Your task to perform on an android device: turn off notifications settings in the gmail app Image 0: 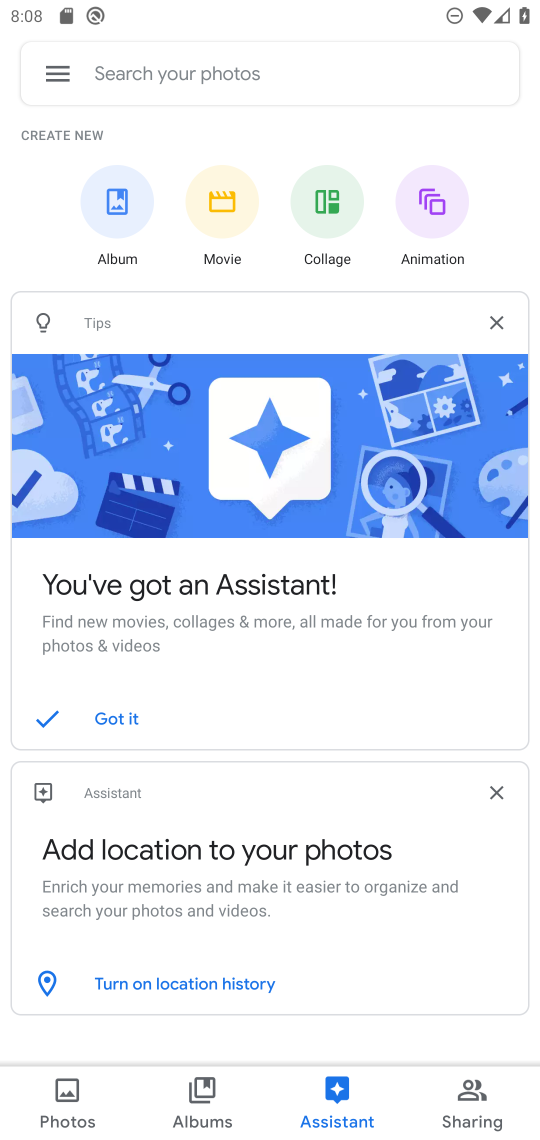
Step 0: press home button
Your task to perform on an android device: turn off notifications settings in the gmail app Image 1: 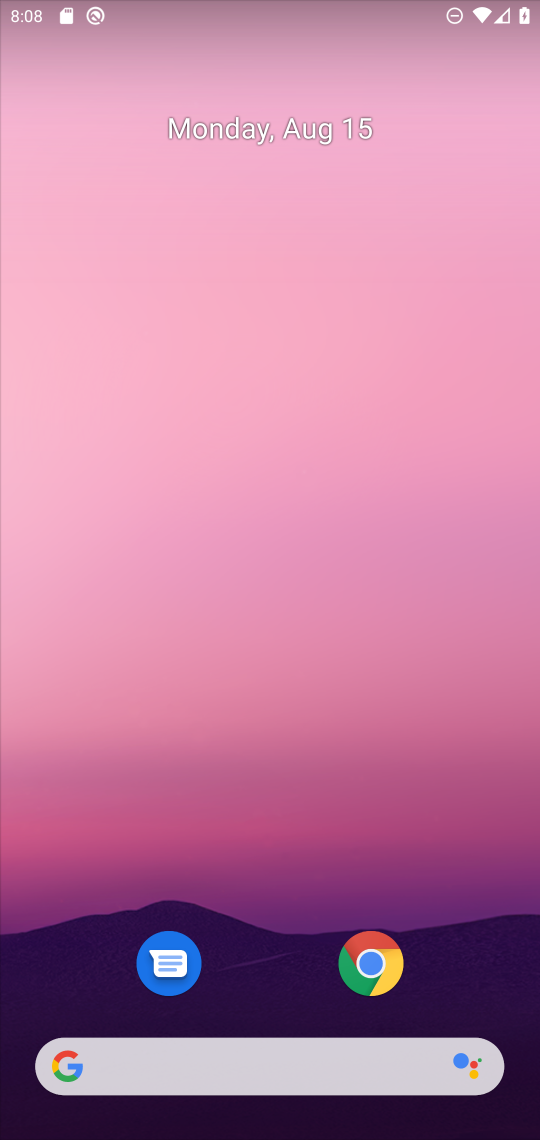
Step 1: drag from (287, 973) to (304, 249)
Your task to perform on an android device: turn off notifications settings in the gmail app Image 2: 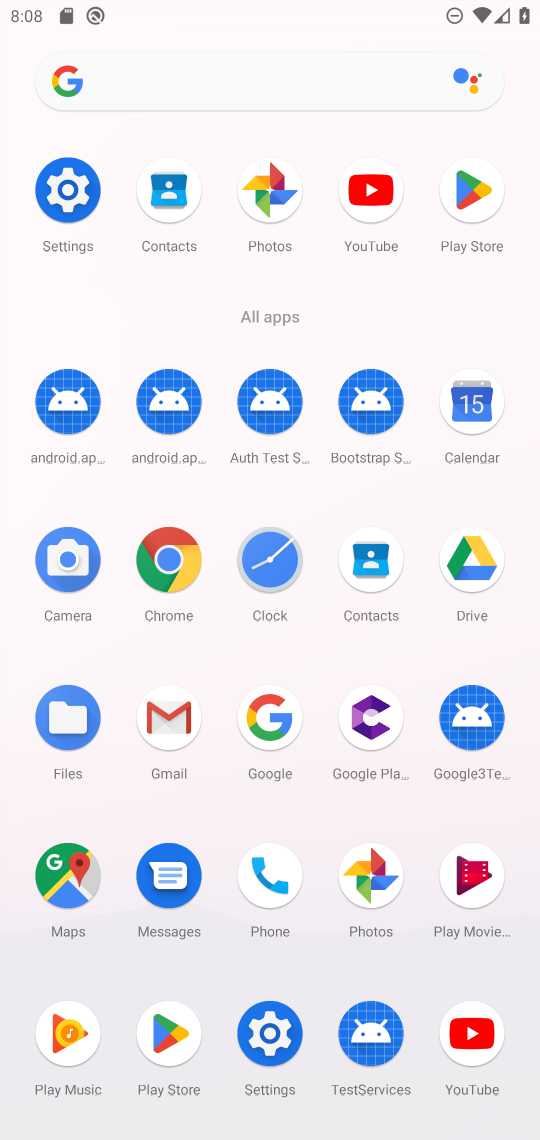
Step 2: click (77, 219)
Your task to perform on an android device: turn off notifications settings in the gmail app Image 3: 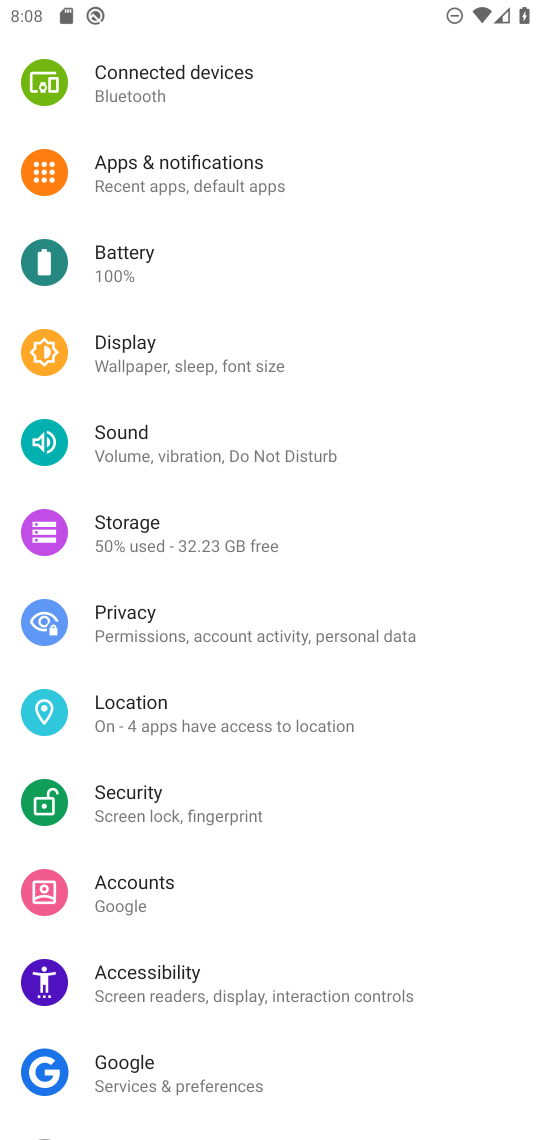
Step 3: click (196, 189)
Your task to perform on an android device: turn off notifications settings in the gmail app Image 4: 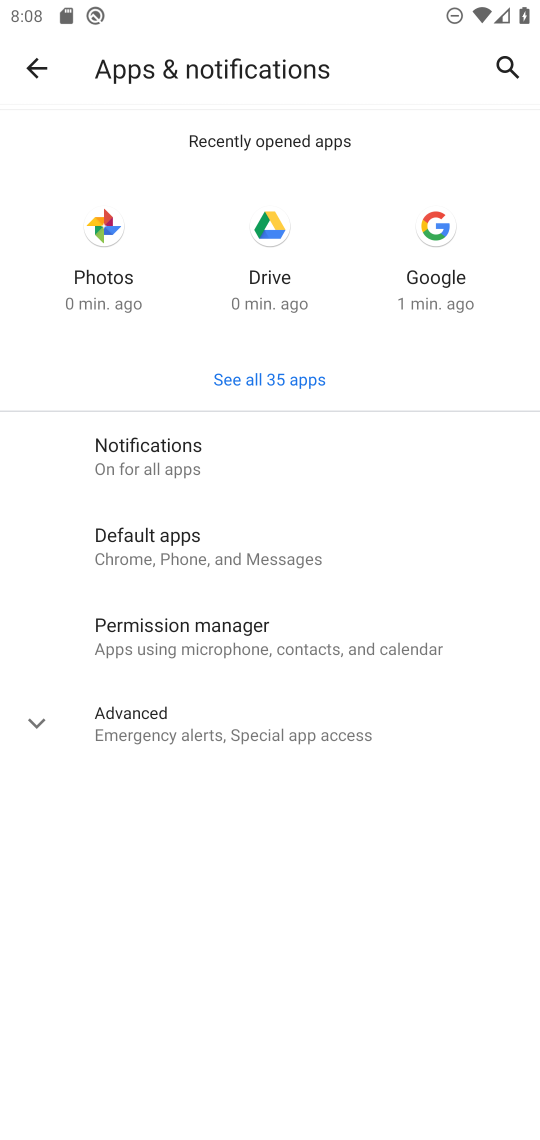
Step 4: click (253, 378)
Your task to perform on an android device: turn off notifications settings in the gmail app Image 5: 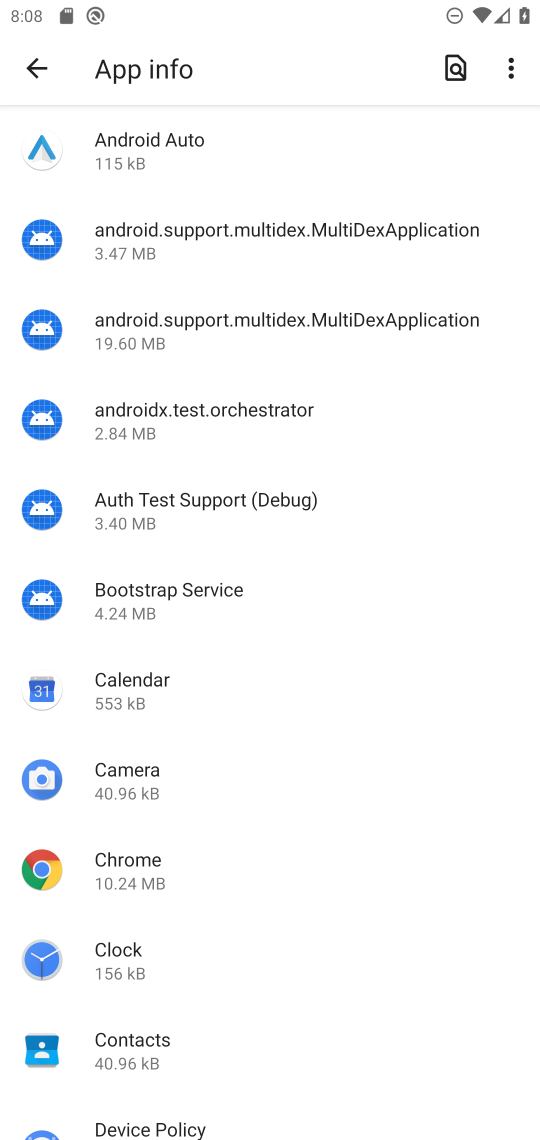
Step 5: click (254, 1086)
Your task to perform on an android device: turn off notifications settings in the gmail app Image 6: 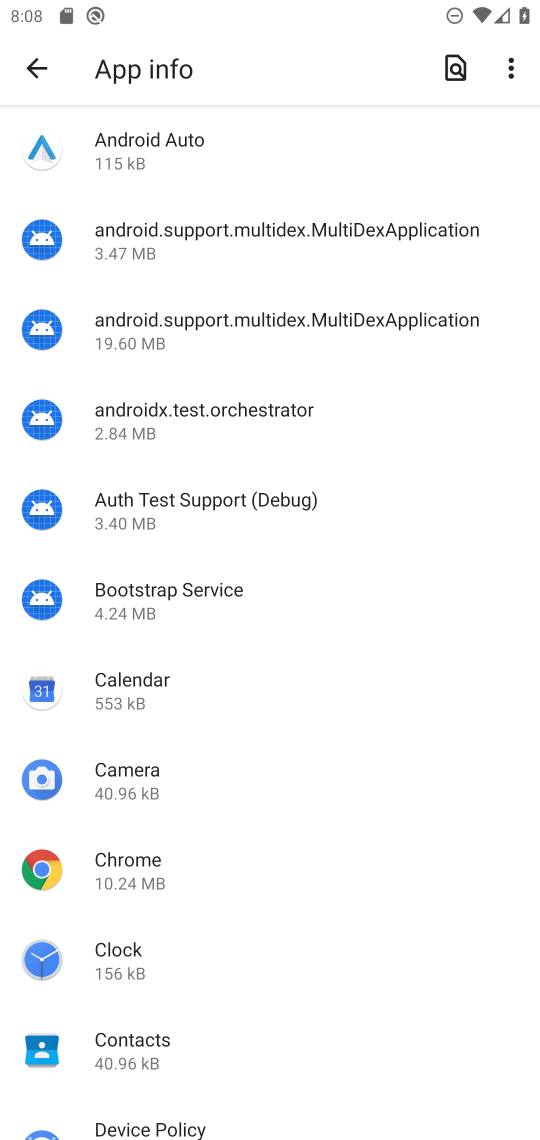
Step 6: drag from (254, 1086) to (320, 193)
Your task to perform on an android device: turn off notifications settings in the gmail app Image 7: 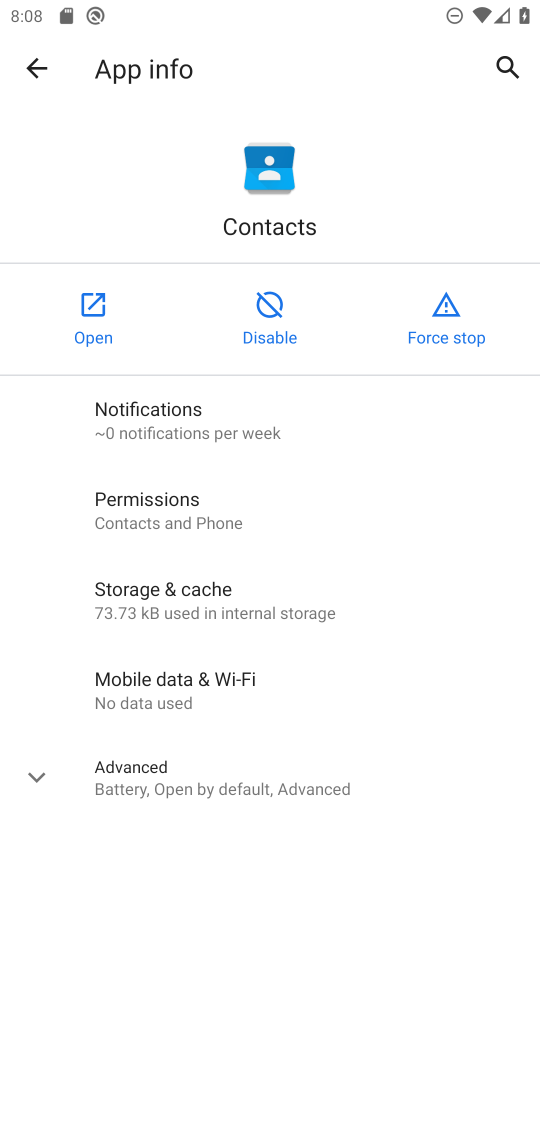
Step 7: click (25, 67)
Your task to perform on an android device: turn off notifications settings in the gmail app Image 8: 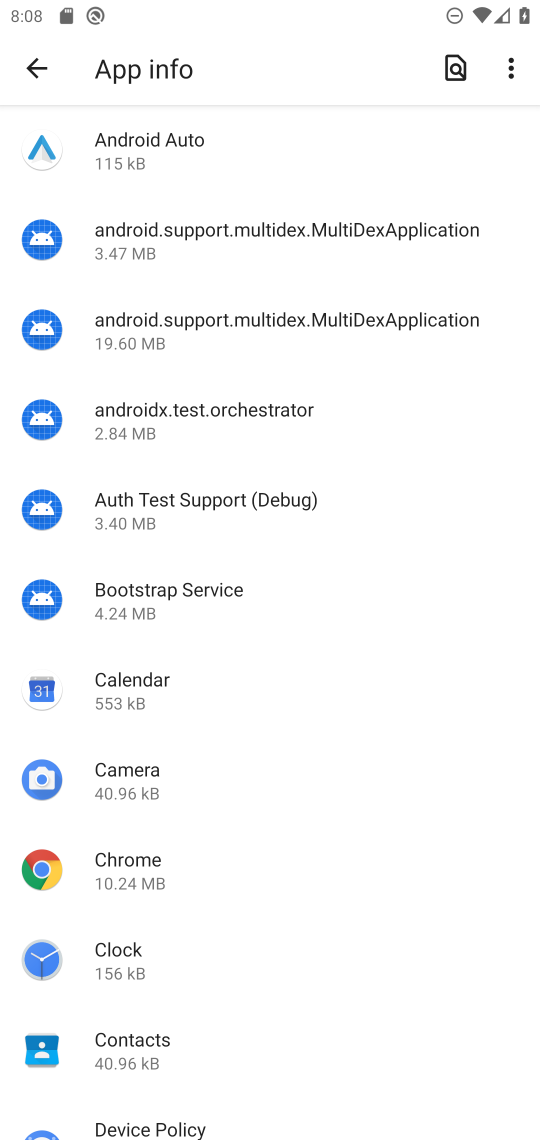
Step 8: drag from (244, 1067) to (194, 257)
Your task to perform on an android device: turn off notifications settings in the gmail app Image 9: 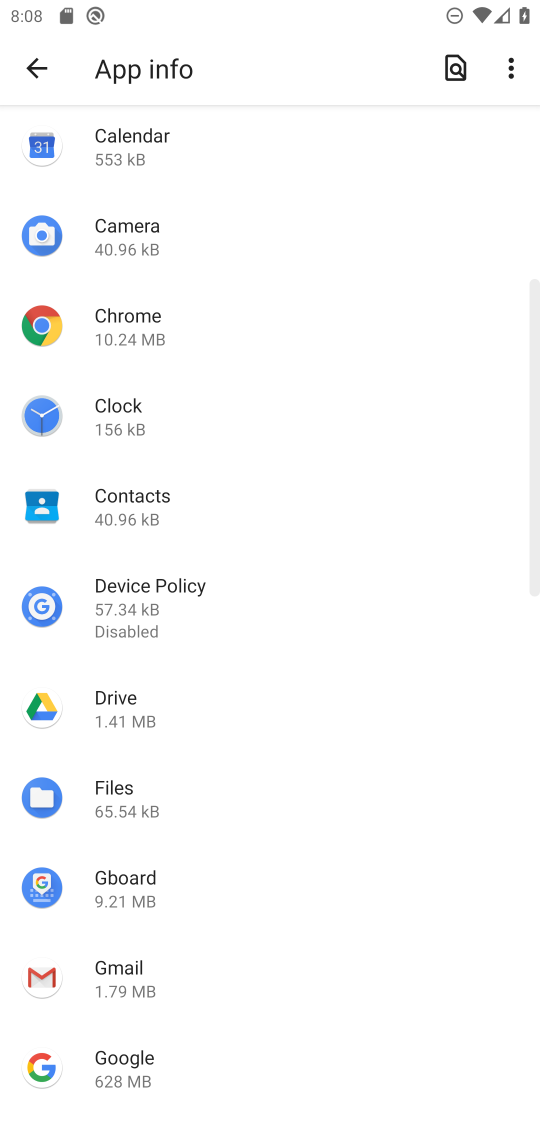
Step 9: click (177, 947)
Your task to perform on an android device: turn off notifications settings in the gmail app Image 10: 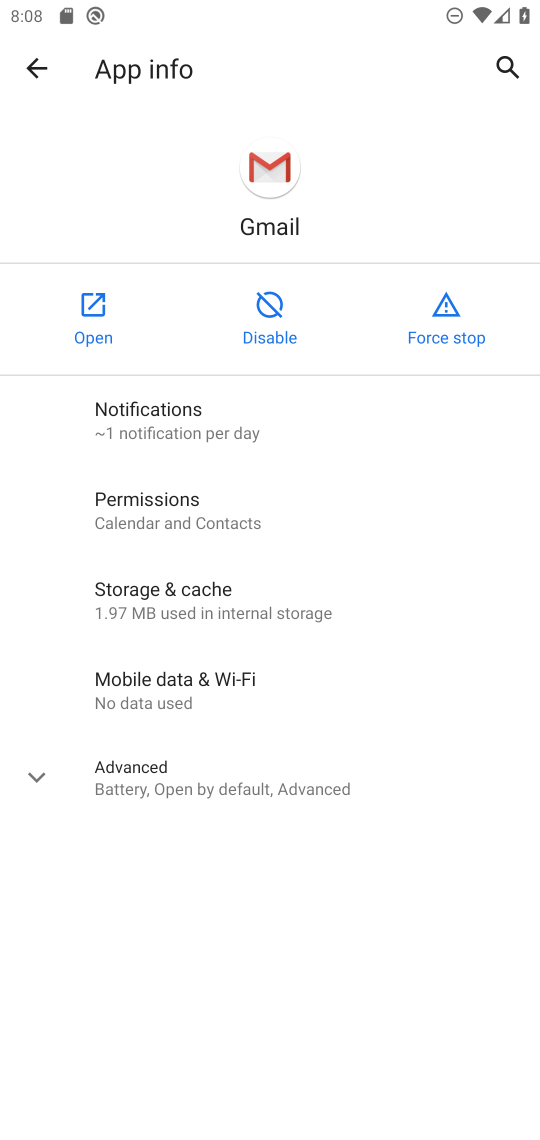
Step 10: click (104, 444)
Your task to perform on an android device: turn off notifications settings in the gmail app Image 11: 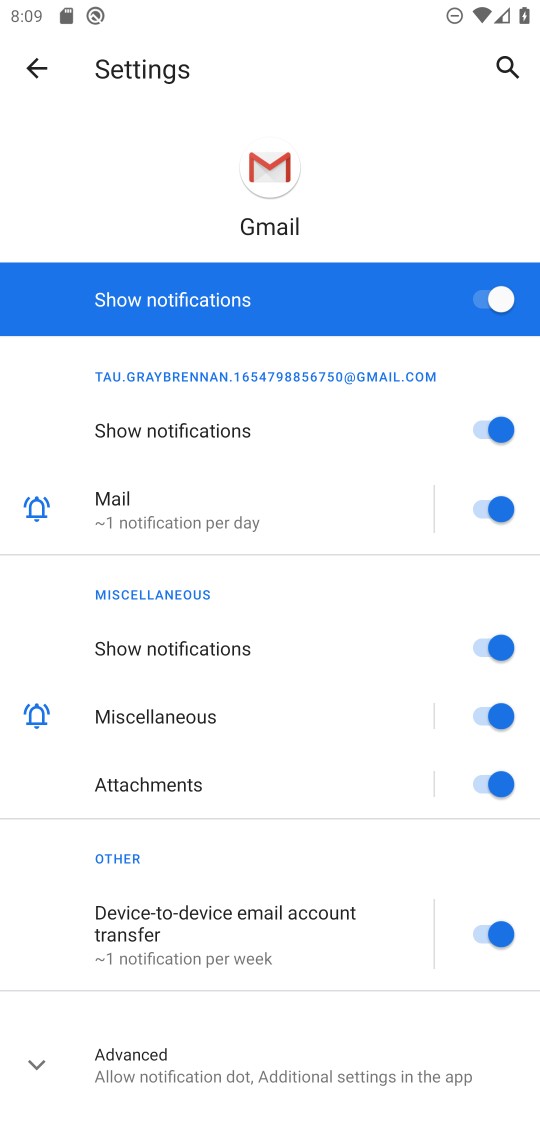
Step 11: click (497, 294)
Your task to perform on an android device: turn off notifications settings in the gmail app Image 12: 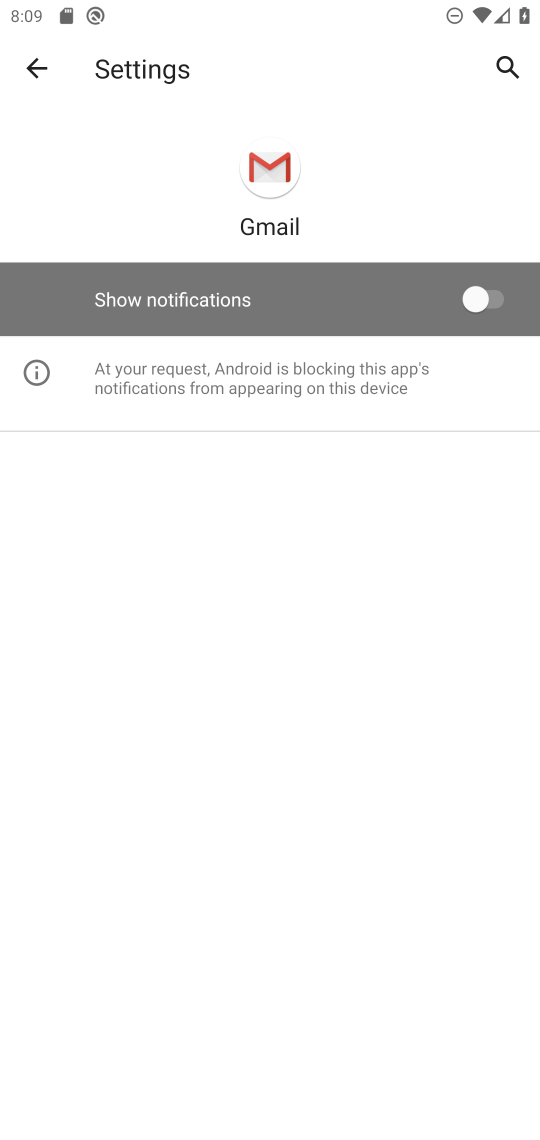
Step 12: task complete